Your task to perform on an android device: Open privacy settings Image 0: 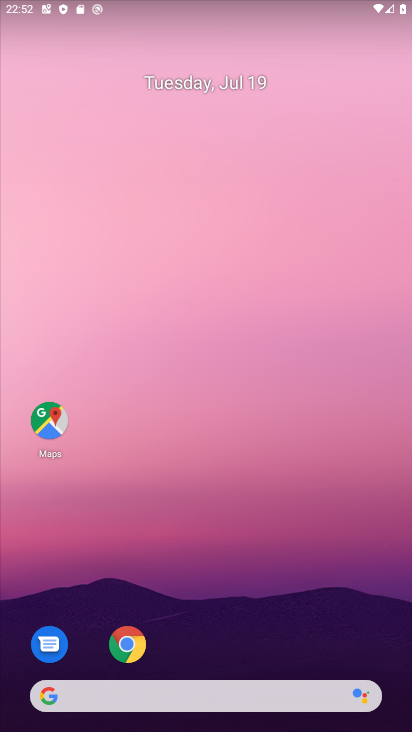
Step 0: drag from (228, 727) to (217, 365)
Your task to perform on an android device: Open privacy settings Image 1: 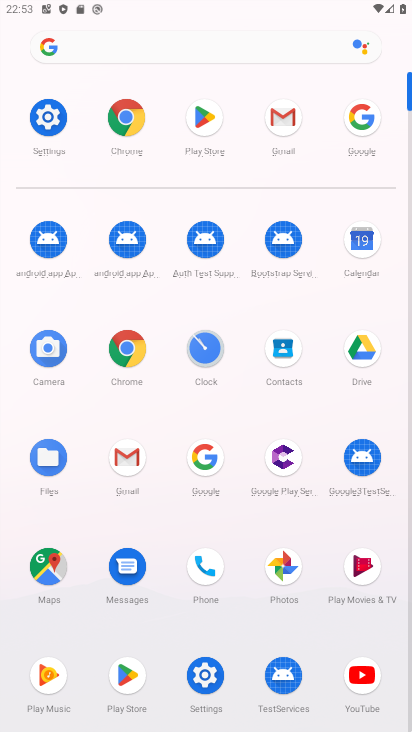
Step 1: click (42, 118)
Your task to perform on an android device: Open privacy settings Image 2: 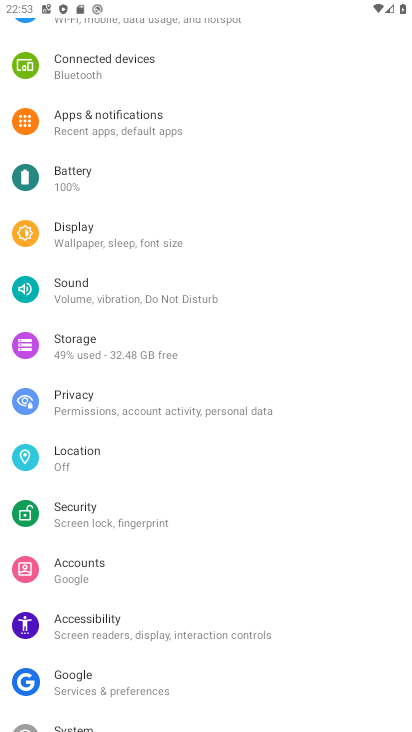
Step 2: click (73, 405)
Your task to perform on an android device: Open privacy settings Image 3: 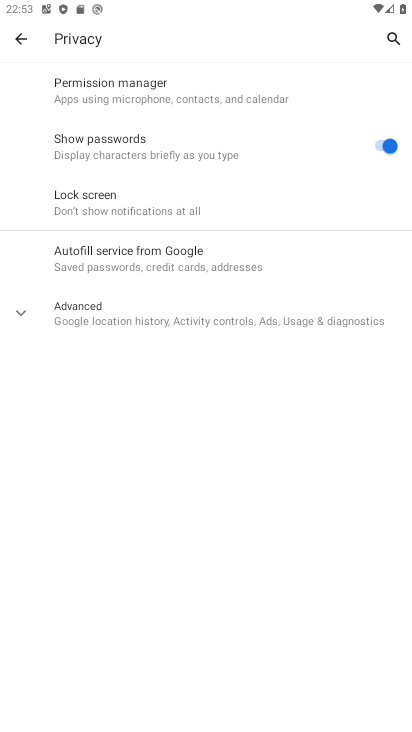
Step 3: task complete